Your task to perform on an android device: open chrome and create a bookmark for the current page Image 0: 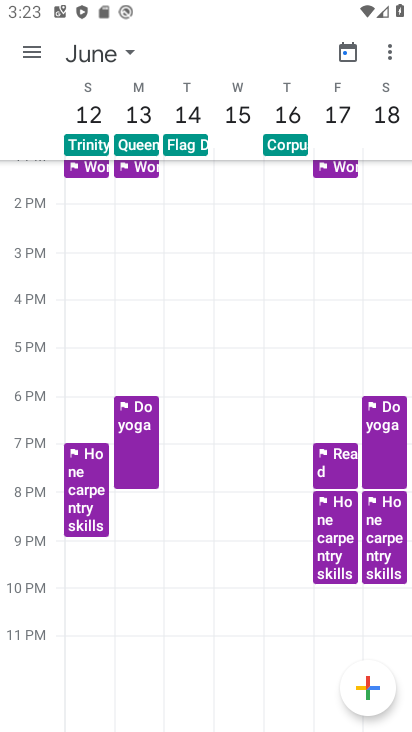
Step 0: press home button
Your task to perform on an android device: open chrome and create a bookmark for the current page Image 1: 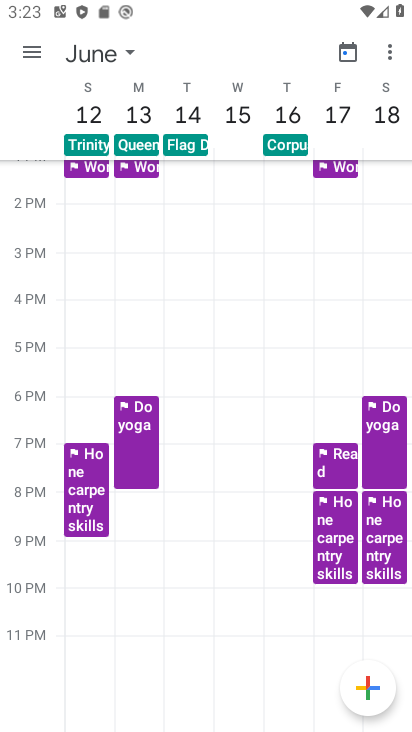
Step 1: press home button
Your task to perform on an android device: open chrome and create a bookmark for the current page Image 2: 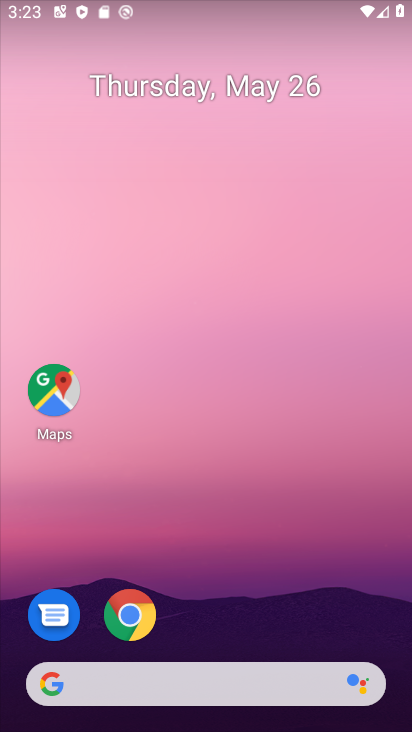
Step 2: click (140, 617)
Your task to perform on an android device: open chrome and create a bookmark for the current page Image 3: 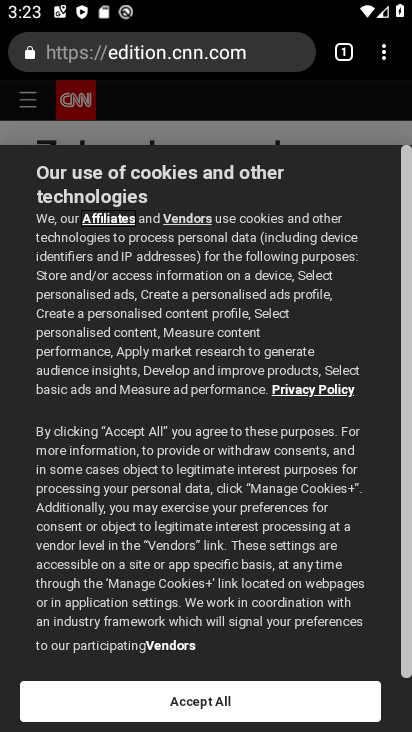
Step 3: click (384, 57)
Your task to perform on an android device: open chrome and create a bookmark for the current page Image 4: 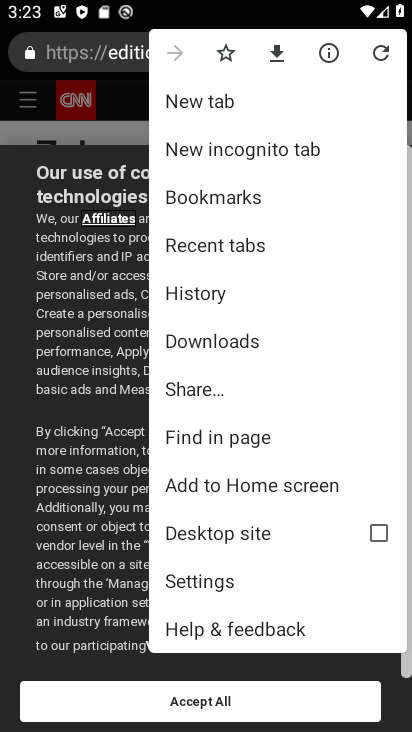
Step 4: click (216, 39)
Your task to perform on an android device: open chrome and create a bookmark for the current page Image 5: 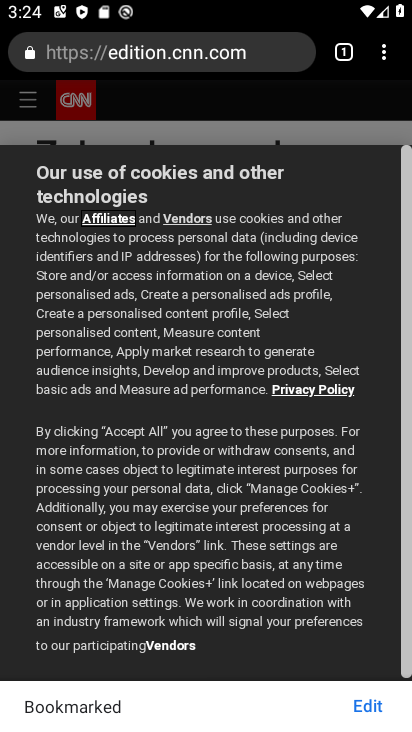
Step 5: task complete